Your task to perform on an android device: Go to battery settings Image 0: 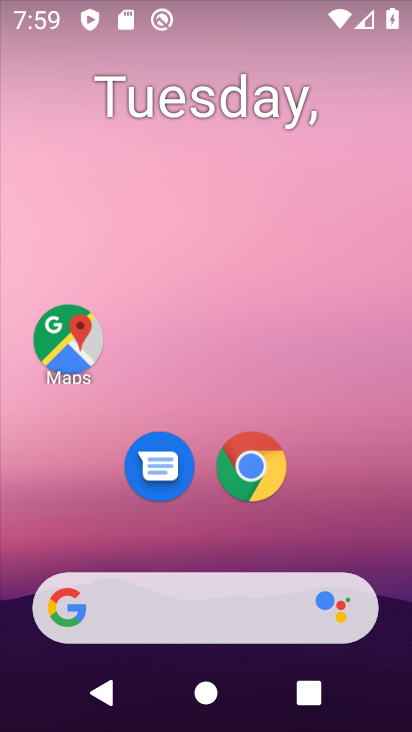
Step 0: drag from (193, 496) to (347, 16)
Your task to perform on an android device: Go to battery settings Image 1: 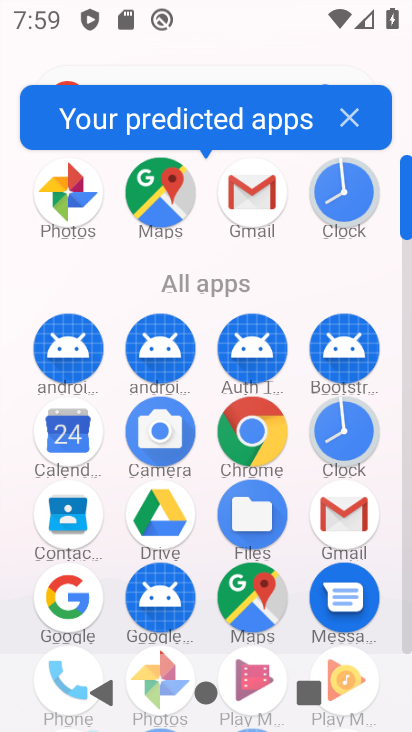
Step 1: drag from (198, 490) to (256, 104)
Your task to perform on an android device: Go to battery settings Image 2: 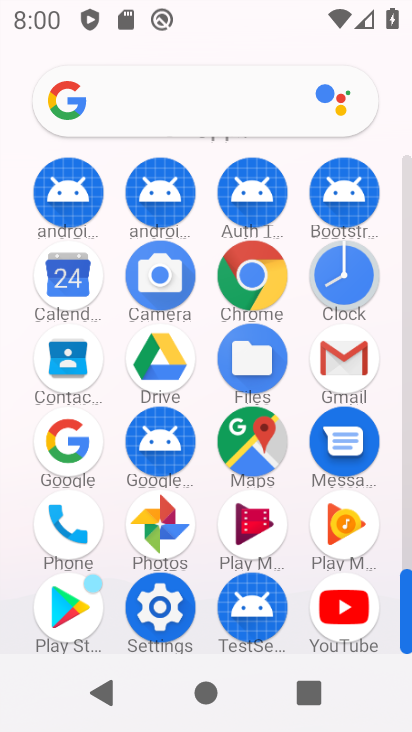
Step 2: click (167, 622)
Your task to perform on an android device: Go to battery settings Image 3: 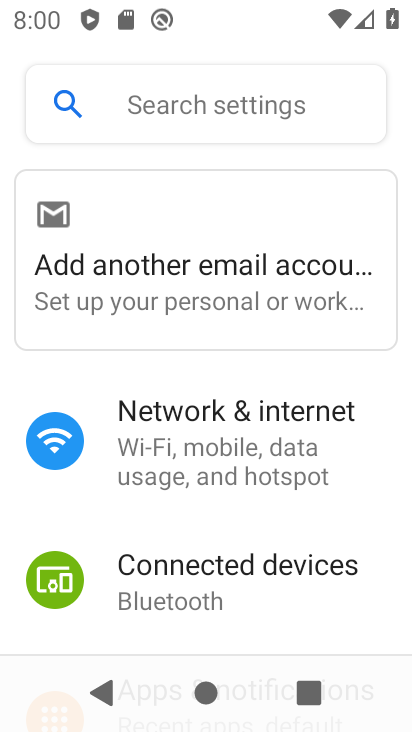
Step 3: drag from (233, 568) to (305, 201)
Your task to perform on an android device: Go to battery settings Image 4: 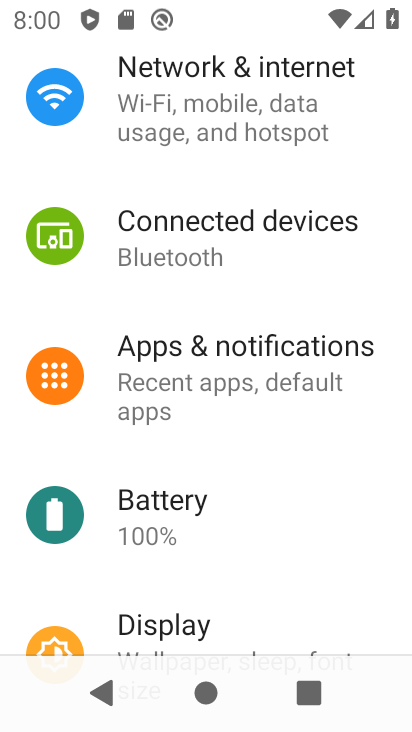
Step 4: click (211, 519)
Your task to perform on an android device: Go to battery settings Image 5: 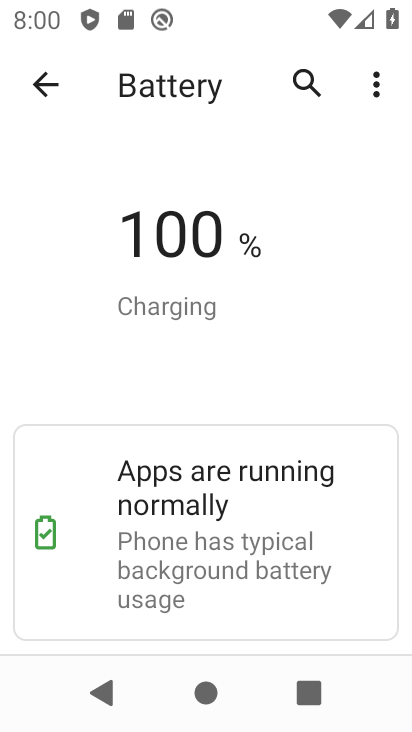
Step 5: task complete